Your task to perform on an android device: turn off priority inbox in the gmail app Image 0: 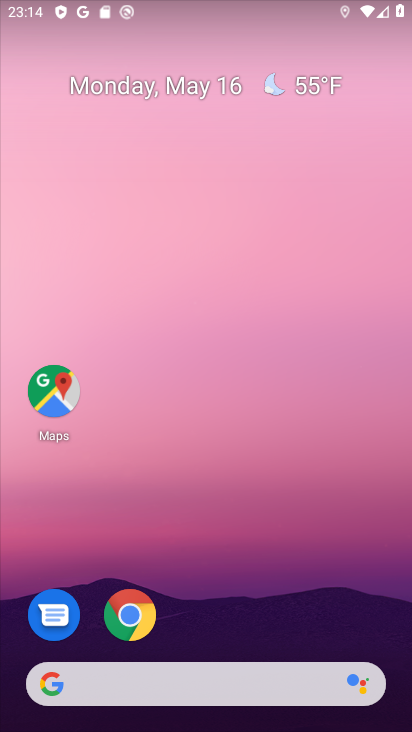
Step 0: drag from (194, 652) to (178, 124)
Your task to perform on an android device: turn off priority inbox in the gmail app Image 1: 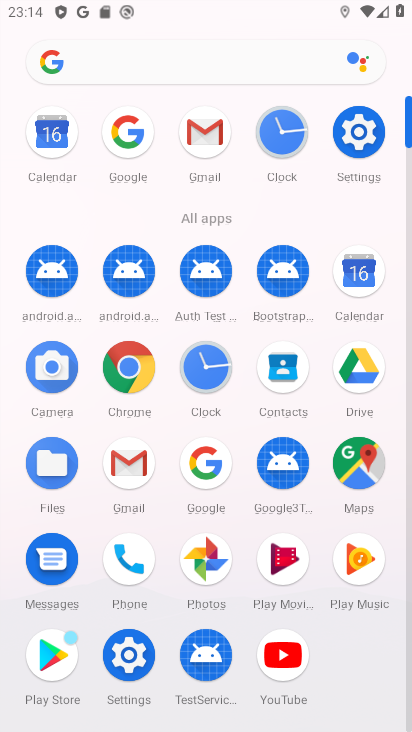
Step 1: click (116, 470)
Your task to perform on an android device: turn off priority inbox in the gmail app Image 2: 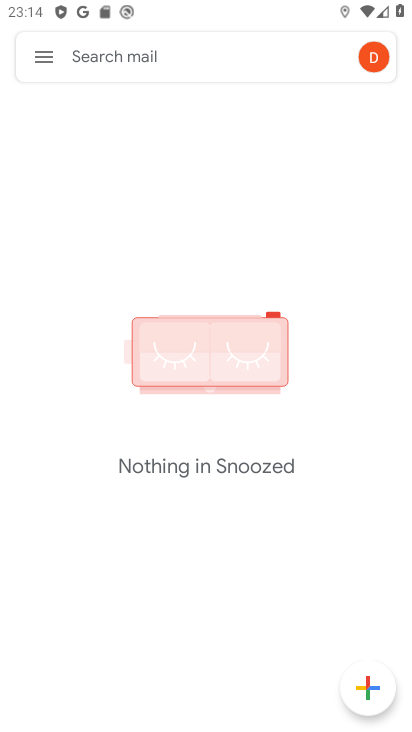
Step 2: click (54, 55)
Your task to perform on an android device: turn off priority inbox in the gmail app Image 3: 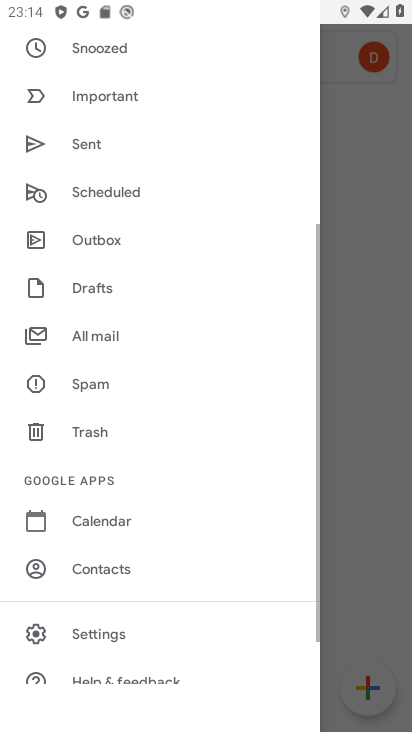
Step 3: click (93, 615)
Your task to perform on an android device: turn off priority inbox in the gmail app Image 4: 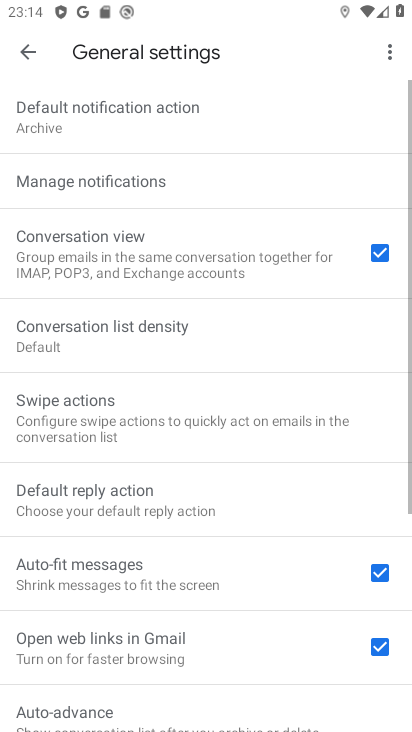
Step 4: drag from (122, 559) to (113, 87)
Your task to perform on an android device: turn off priority inbox in the gmail app Image 5: 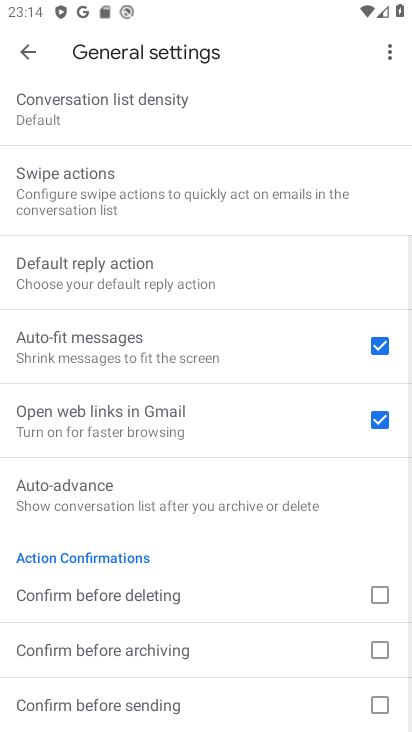
Step 5: click (25, 66)
Your task to perform on an android device: turn off priority inbox in the gmail app Image 6: 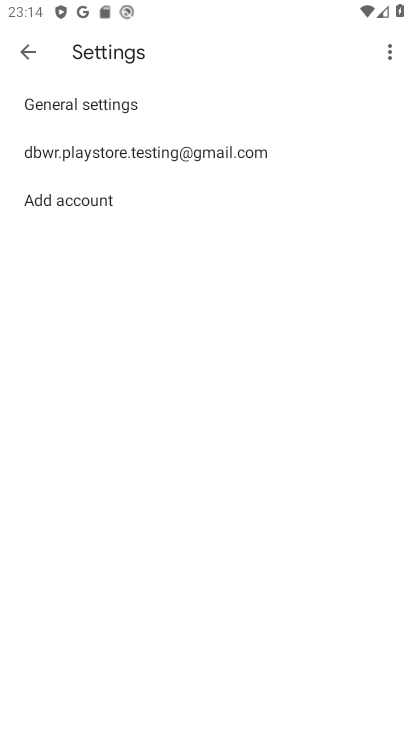
Step 6: click (60, 141)
Your task to perform on an android device: turn off priority inbox in the gmail app Image 7: 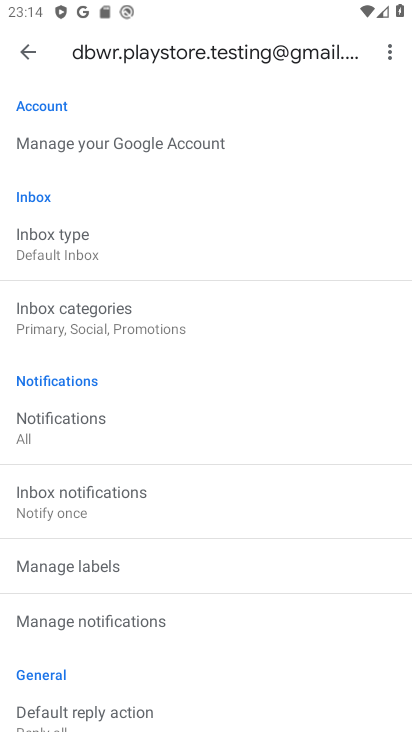
Step 7: drag from (109, 552) to (101, 383)
Your task to perform on an android device: turn off priority inbox in the gmail app Image 8: 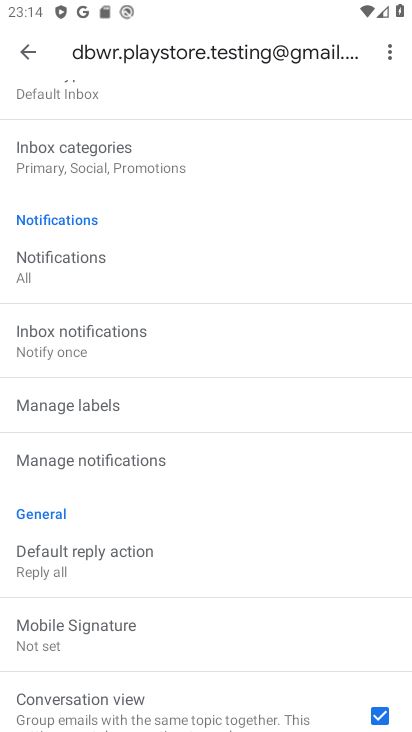
Step 8: click (61, 90)
Your task to perform on an android device: turn off priority inbox in the gmail app Image 9: 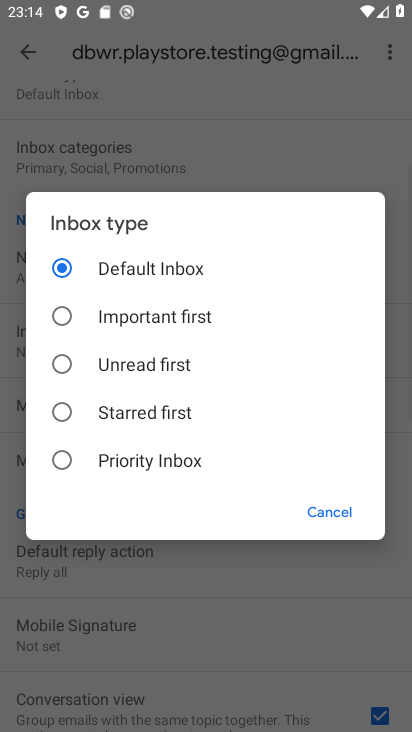
Step 9: task complete